Your task to perform on an android device: Open network settings Image 0: 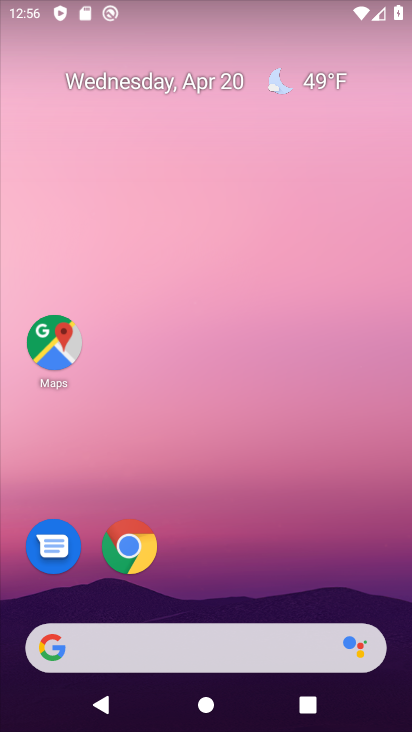
Step 0: drag from (269, 486) to (261, 42)
Your task to perform on an android device: Open network settings Image 1: 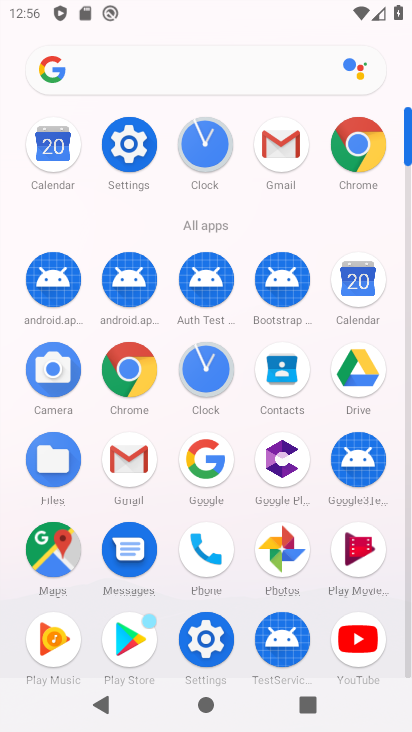
Step 1: click (136, 136)
Your task to perform on an android device: Open network settings Image 2: 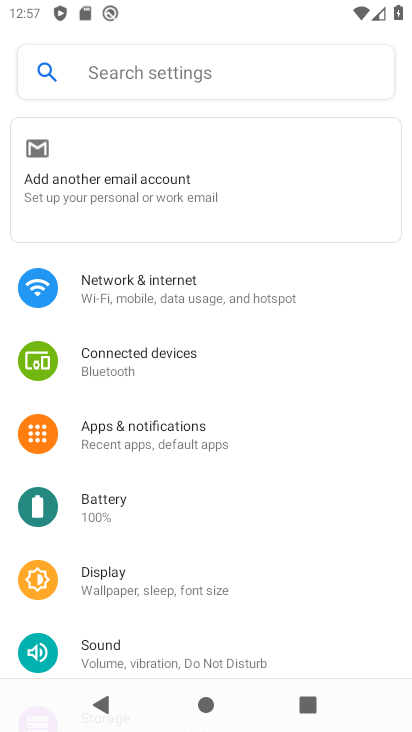
Step 2: click (172, 286)
Your task to perform on an android device: Open network settings Image 3: 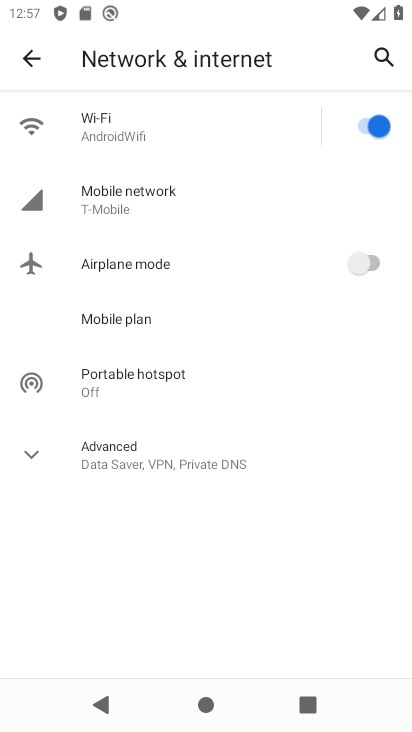
Step 3: task complete